Your task to perform on an android device: Open Google Maps and go to "Timeline" Image 0: 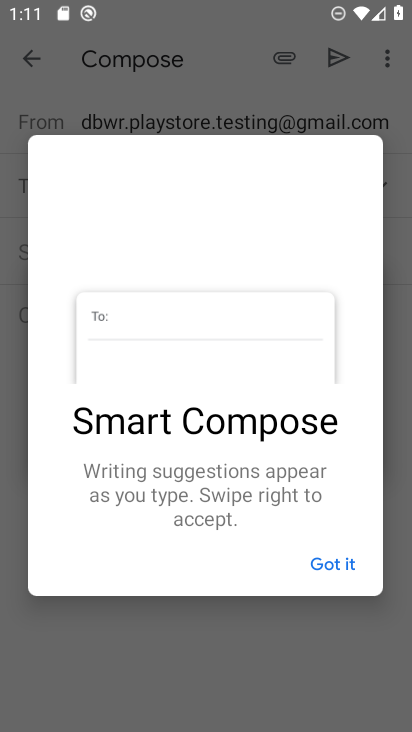
Step 0: press home button
Your task to perform on an android device: Open Google Maps and go to "Timeline" Image 1: 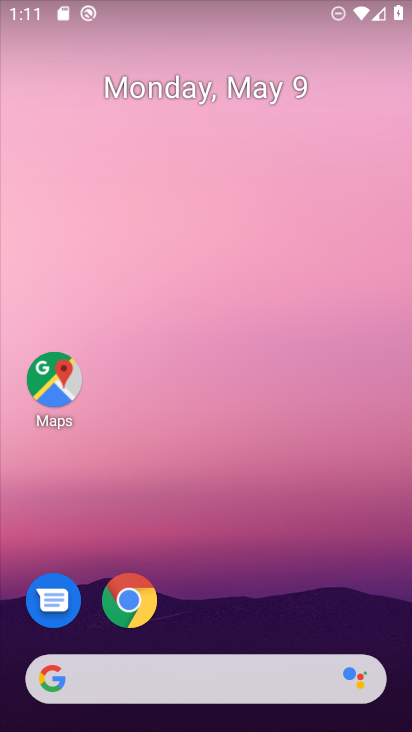
Step 1: click (64, 388)
Your task to perform on an android device: Open Google Maps and go to "Timeline" Image 2: 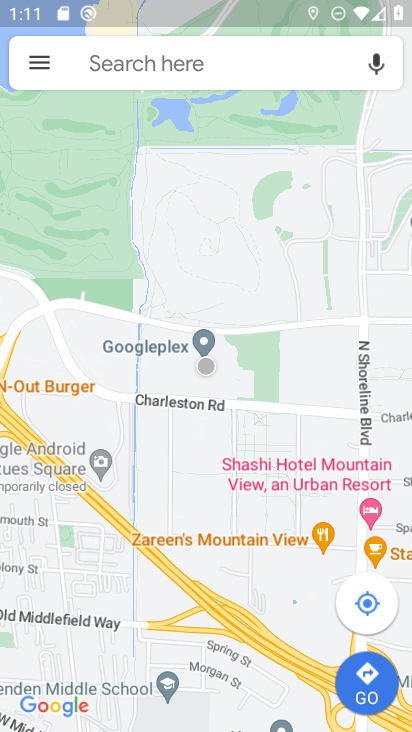
Step 2: click (38, 67)
Your task to perform on an android device: Open Google Maps and go to "Timeline" Image 3: 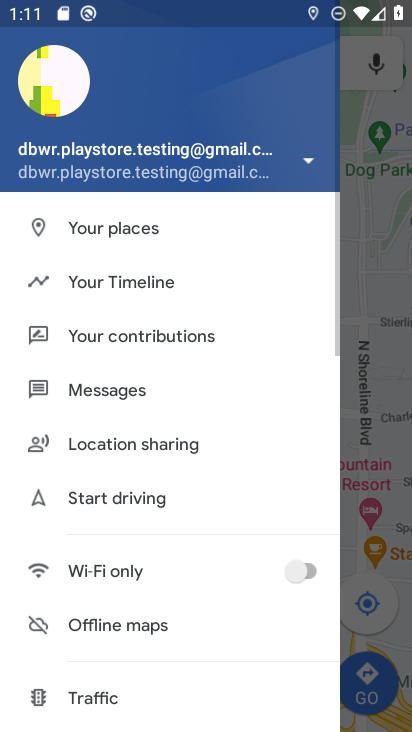
Step 3: click (123, 290)
Your task to perform on an android device: Open Google Maps and go to "Timeline" Image 4: 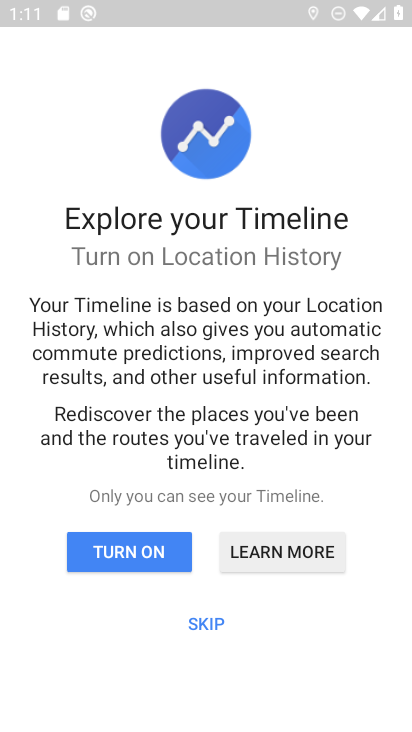
Step 4: click (214, 616)
Your task to perform on an android device: Open Google Maps and go to "Timeline" Image 5: 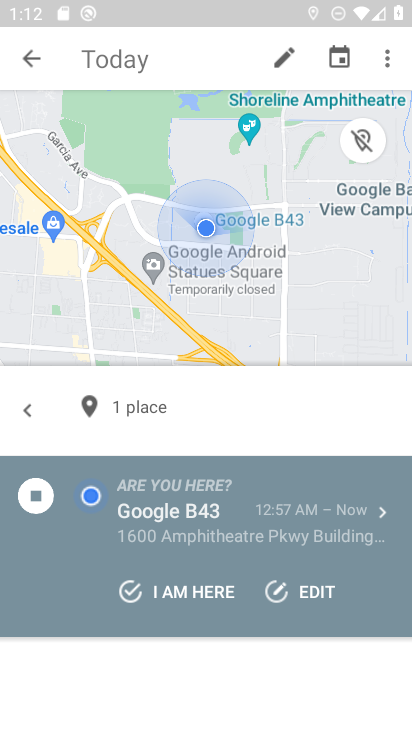
Step 5: task complete